Your task to perform on an android device: Play the last video I watched on Youtube Image 0: 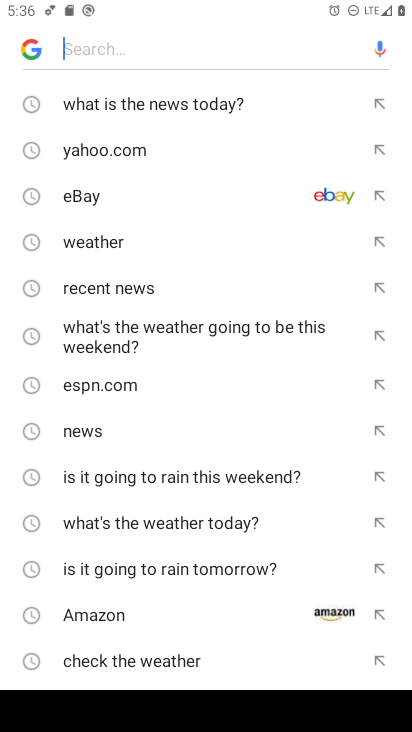
Step 0: press home button
Your task to perform on an android device: Play the last video I watched on Youtube Image 1: 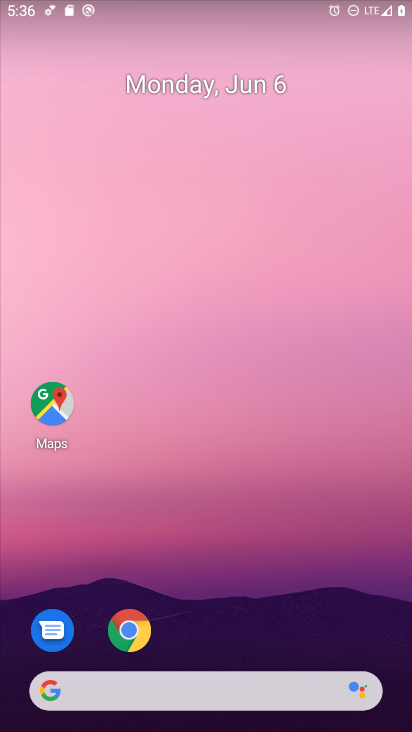
Step 1: drag from (287, 609) to (190, 2)
Your task to perform on an android device: Play the last video I watched on Youtube Image 2: 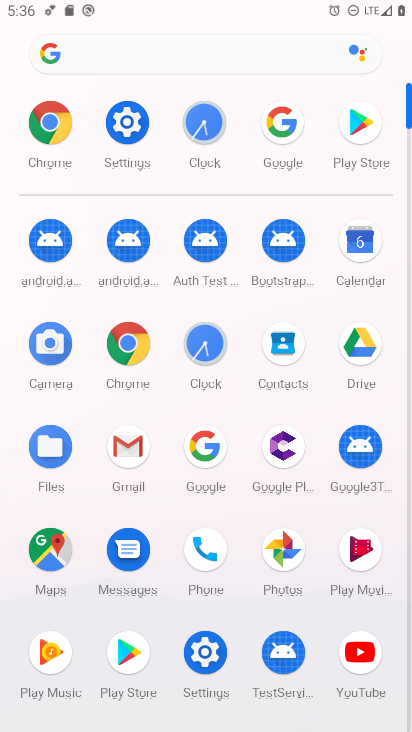
Step 2: click (363, 669)
Your task to perform on an android device: Play the last video I watched on Youtube Image 3: 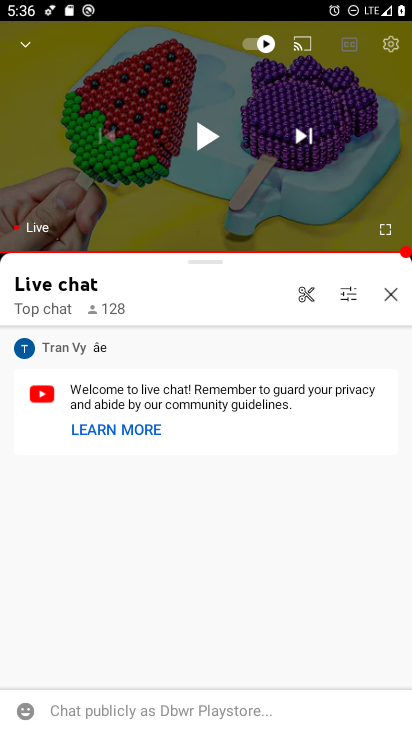
Step 3: click (212, 133)
Your task to perform on an android device: Play the last video I watched on Youtube Image 4: 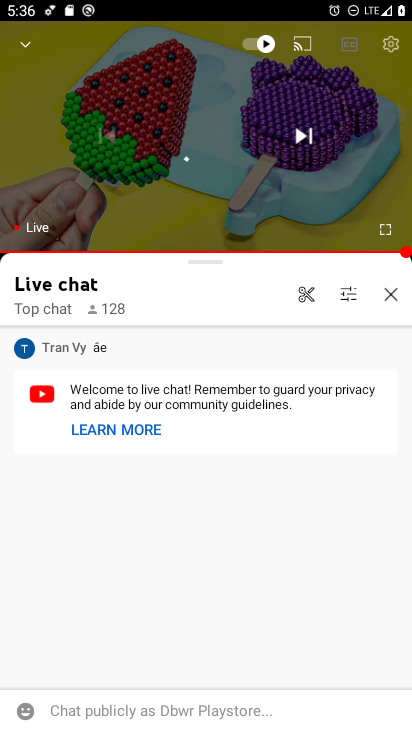
Step 4: click (203, 134)
Your task to perform on an android device: Play the last video I watched on Youtube Image 5: 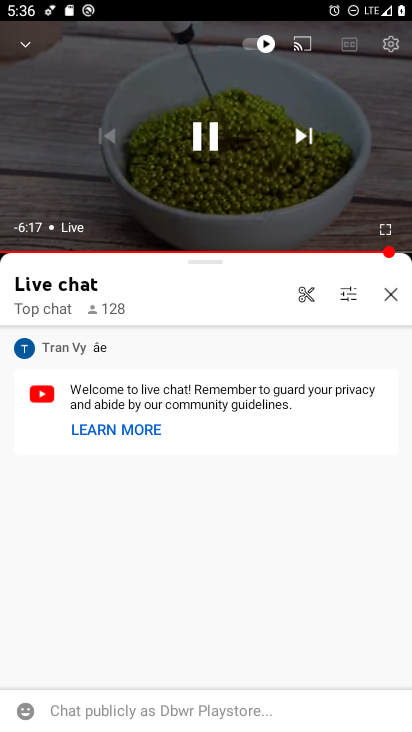
Step 5: click (203, 134)
Your task to perform on an android device: Play the last video I watched on Youtube Image 6: 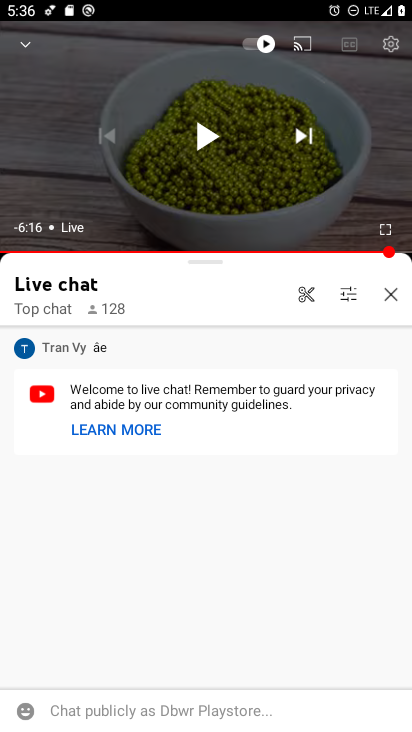
Step 6: task complete